Your task to perform on an android device: Search for pizza restaurants on Maps Image 0: 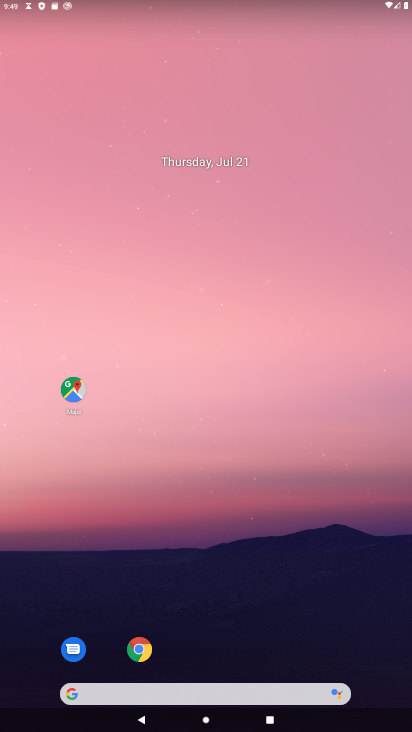
Step 0: click (72, 390)
Your task to perform on an android device: Search for pizza restaurants on Maps Image 1: 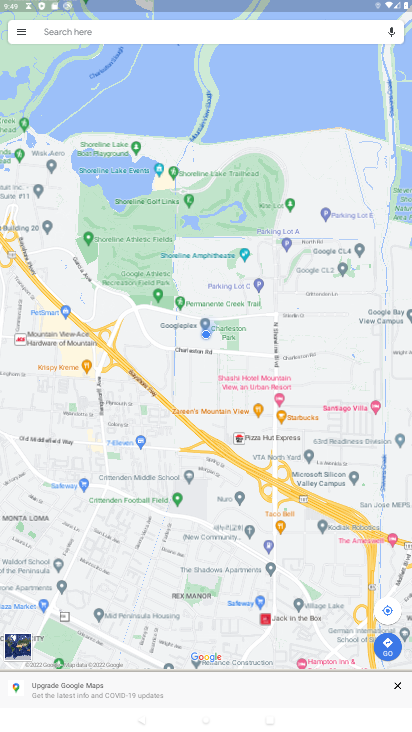
Step 1: click (118, 36)
Your task to perform on an android device: Search for pizza restaurants on Maps Image 2: 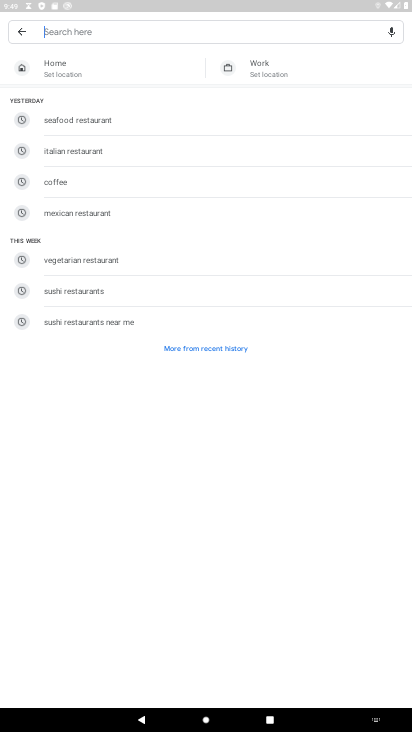
Step 2: type "pizza restaurant"
Your task to perform on an android device: Search for pizza restaurants on Maps Image 3: 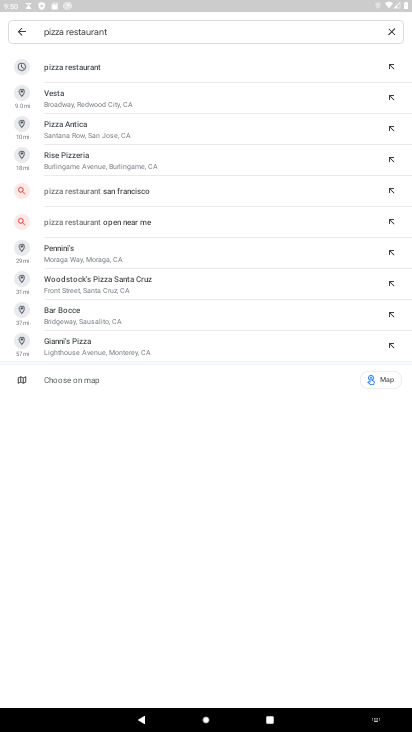
Step 3: click (108, 70)
Your task to perform on an android device: Search for pizza restaurants on Maps Image 4: 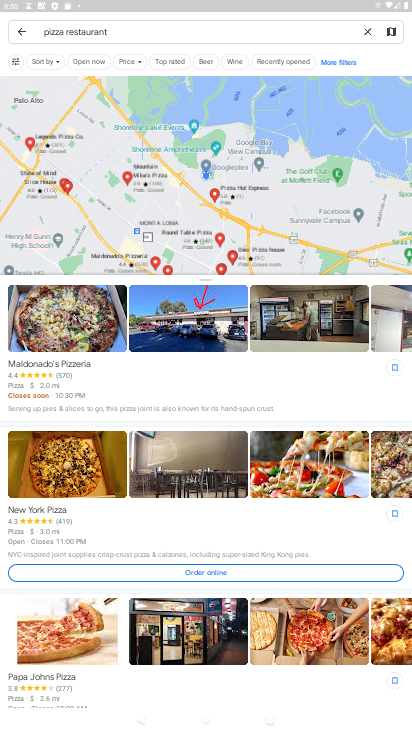
Step 4: task complete